Your task to perform on an android device: turn on javascript in the chrome app Image 0: 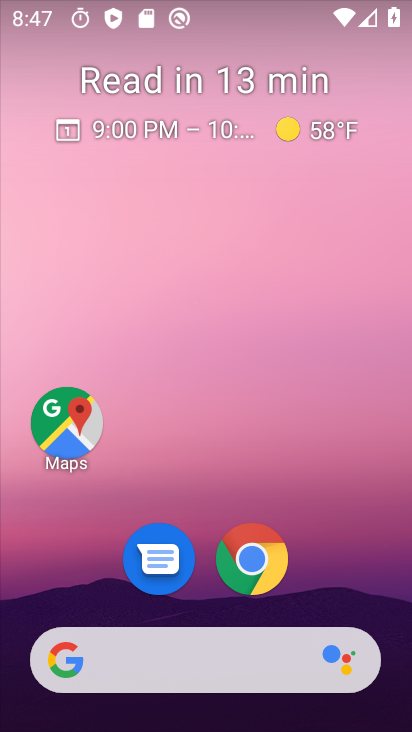
Step 0: click (250, 562)
Your task to perform on an android device: turn on javascript in the chrome app Image 1: 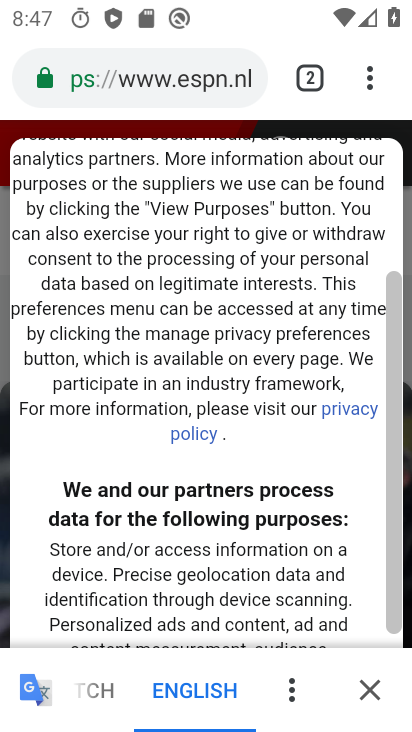
Step 1: click (369, 77)
Your task to perform on an android device: turn on javascript in the chrome app Image 2: 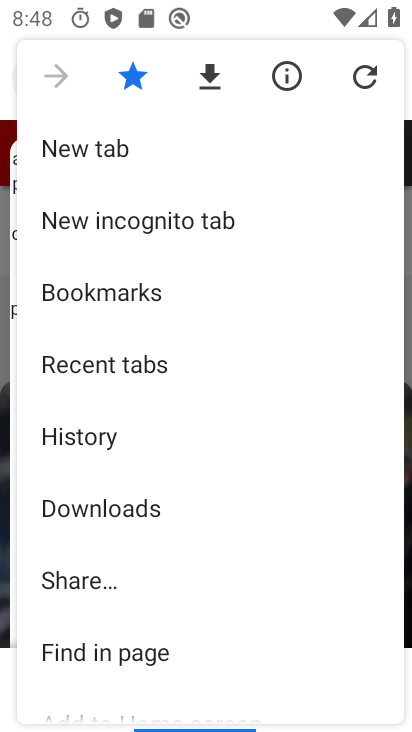
Step 2: drag from (104, 608) to (150, 465)
Your task to perform on an android device: turn on javascript in the chrome app Image 3: 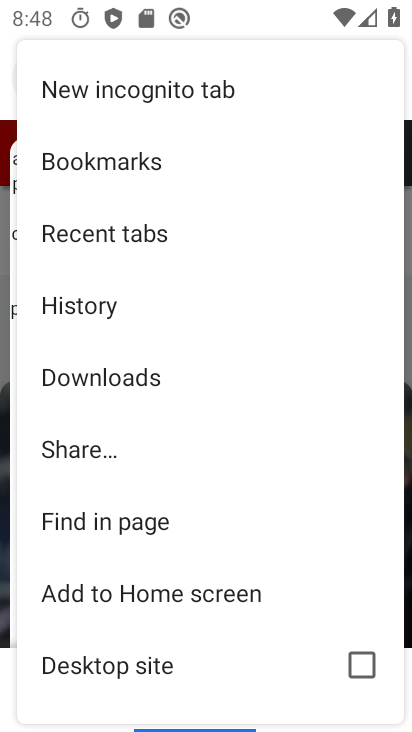
Step 3: drag from (88, 646) to (165, 460)
Your task to perform on an android device: turn on javascript in the chrome app Image 4: 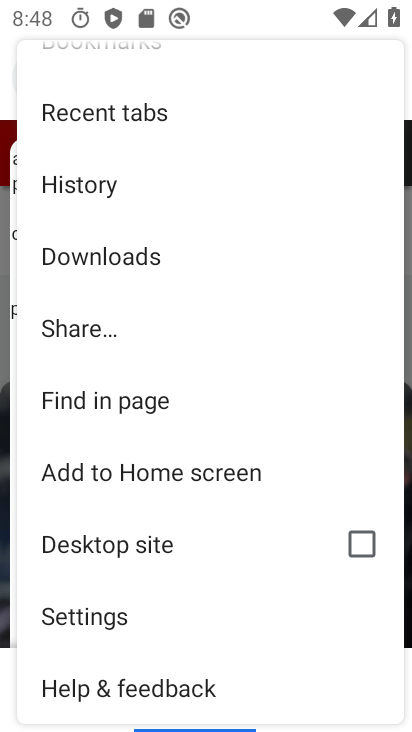
Step 4: click (102, 613)
Your task to perform on an android device: turn on javascript in the chrome app Image 5: 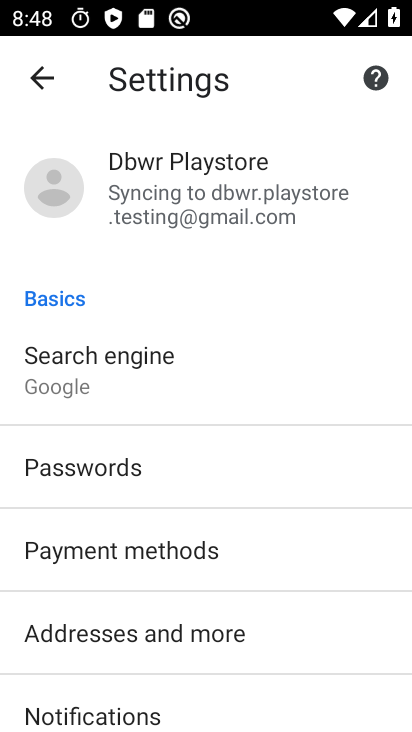
Step 5: drag from (138, 535) to (192, 419)
Your task to perform on an android device: turn on javascript in the chrome app Image 6: 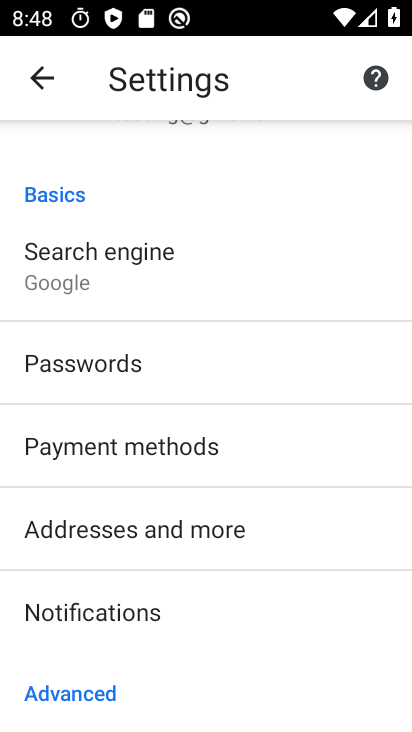
Step 6: drag from (154, 581) to (202, 480)
Your task to perform on an android device: turn on javascript in the chrome app Image 7: 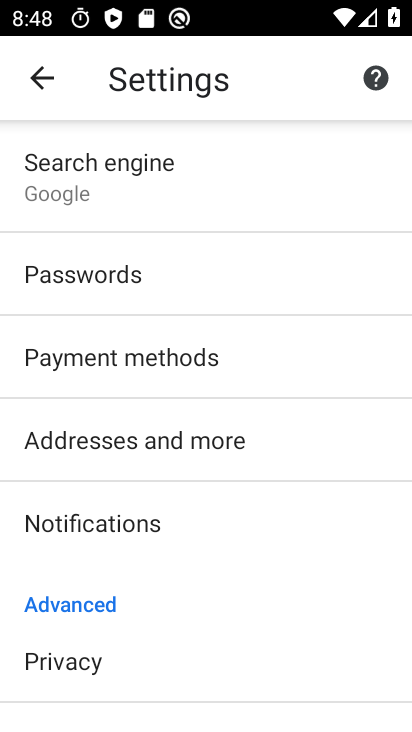
Step 7: drag from (145, 576) to (198, 444)
Your task to perform on an android device: turn on javascript in the chrome app Image 8: 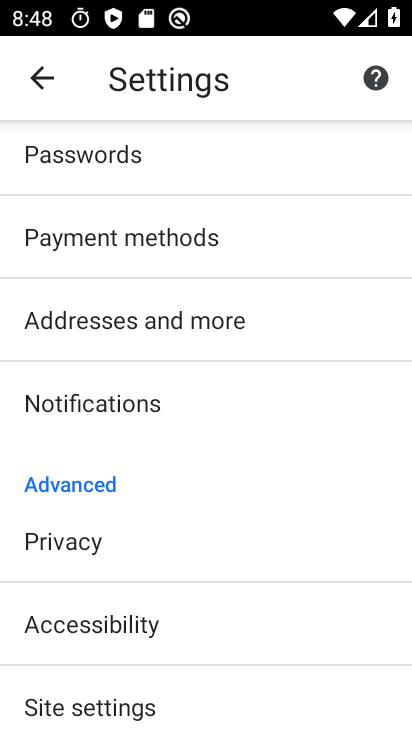
Step 8: drag from (114, 541) to (200, 429)
Your task to perform on an android device: turn on javascript in the chrome app Image 9: 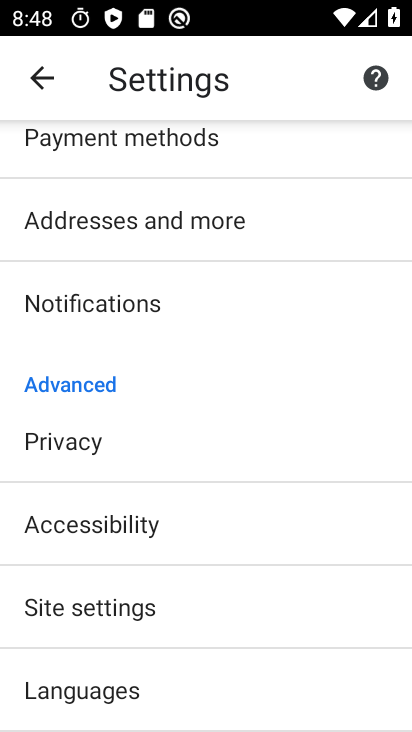
Step 9: drag from (126, 563) to (171, 467)
Your task to perform on an android device: turn on javascript in the chrome app Image 10: 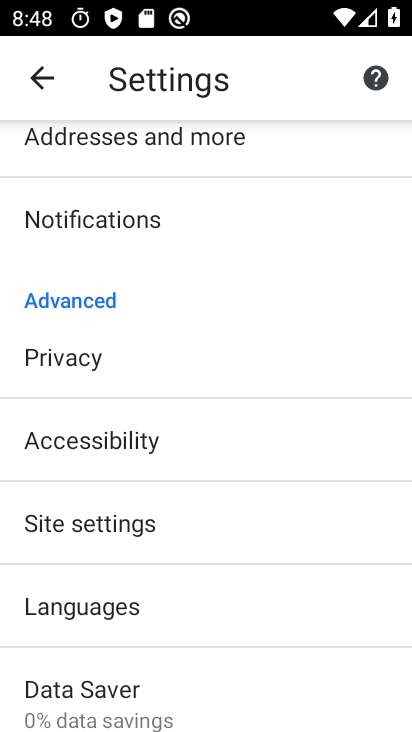
Step 10: click (122, 531)
Your task to perform on an android device: turn on javascript in the chrome app Image 11: 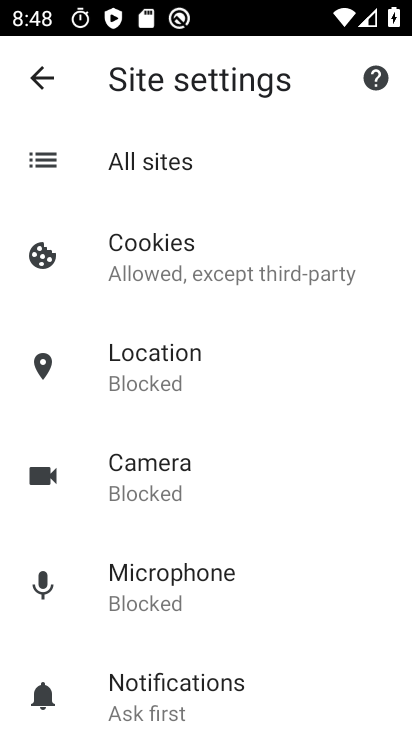
Step 11: drag from (159, 626) to (207, 494)
Your task to perform on an android device: turn on javascript in the chrome app Image 12: 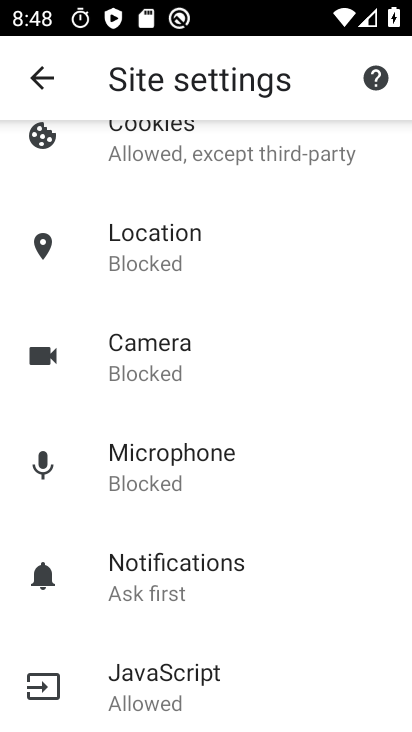
Step 12: drag from (161, 655) to (229, 554)
Your task to perform on an android device: turn on javascript in the chrome app Image 13: 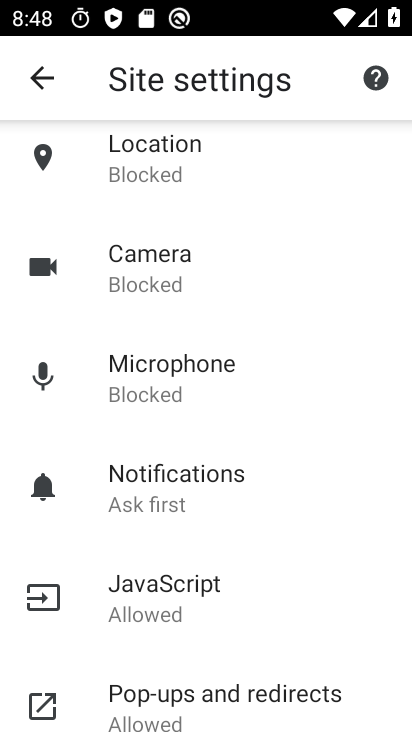
Step 13: click (177, 599)
Your task to perform on an android device: turn on javascript in the chrome app Image 14: 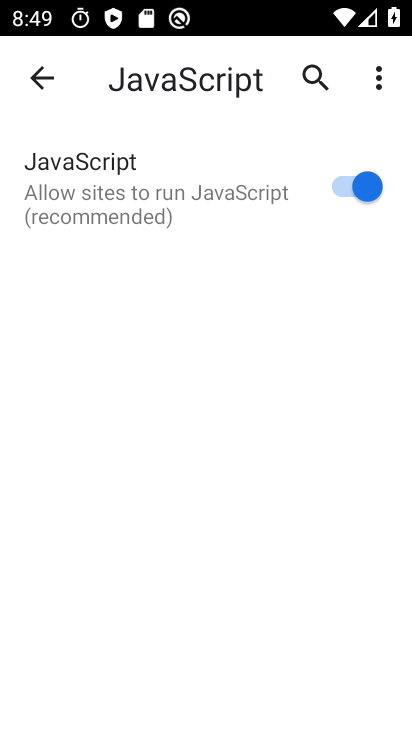
Step 14: task complete